Your task to perform on an android device: change the clock display to show seconds Image 0: 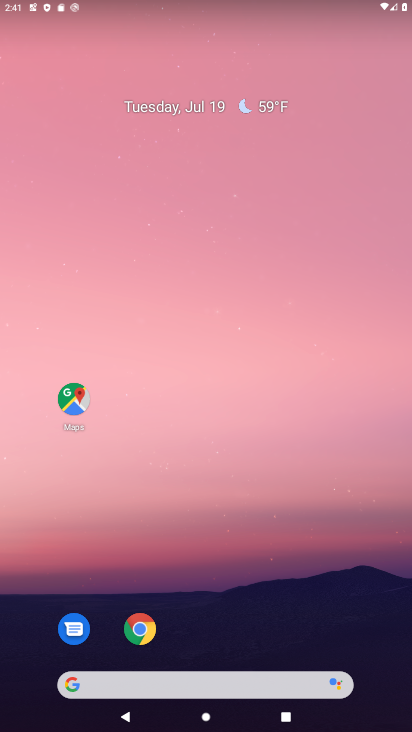
Step 0: drag from (194, 623) to (236, 0)
Your task to perform on an android device: change the clock display to show seconds Image 1: 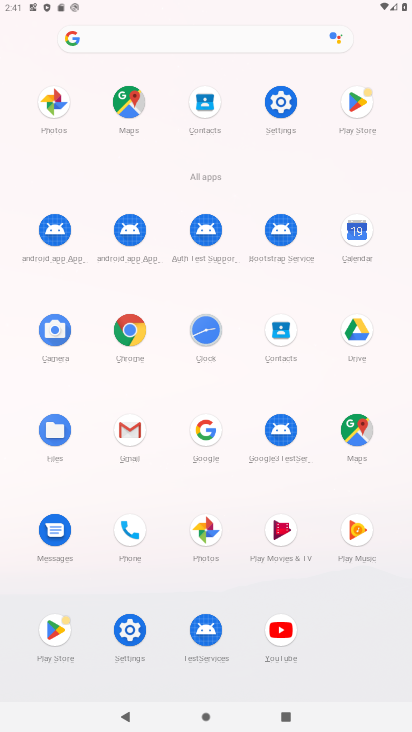
Step 1: click (205, 332)
Your task to perform on an android device: change the clock display to show seconds Image 2: 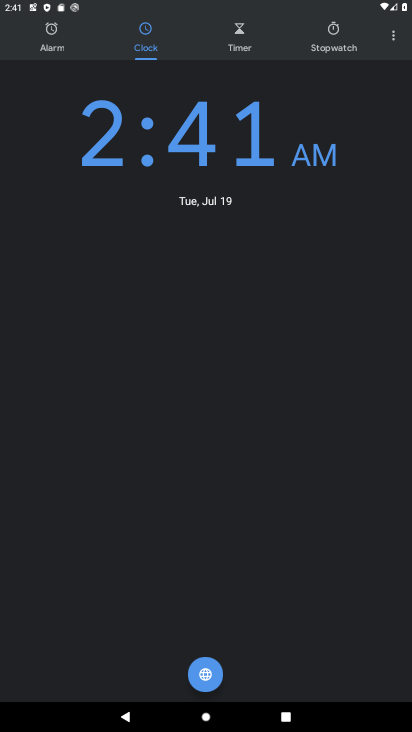
Step 2: click (399, 43)
Your task to perform on an android device: change the clock display to show seconds Image 3: 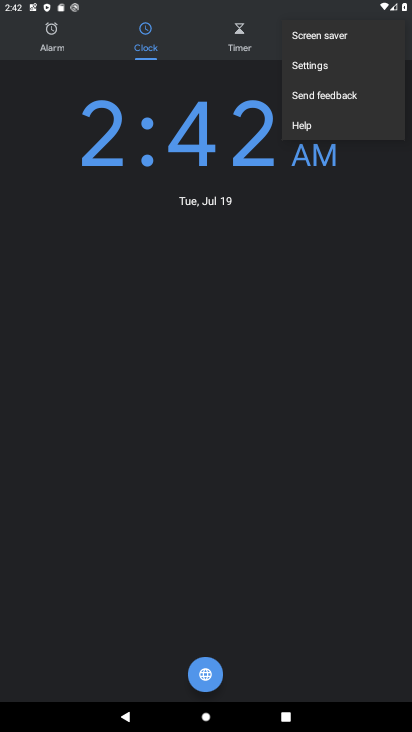
Step 3: click (317, 75)
Your task to perform on an android device: change the clock display to show seconds Image 4: 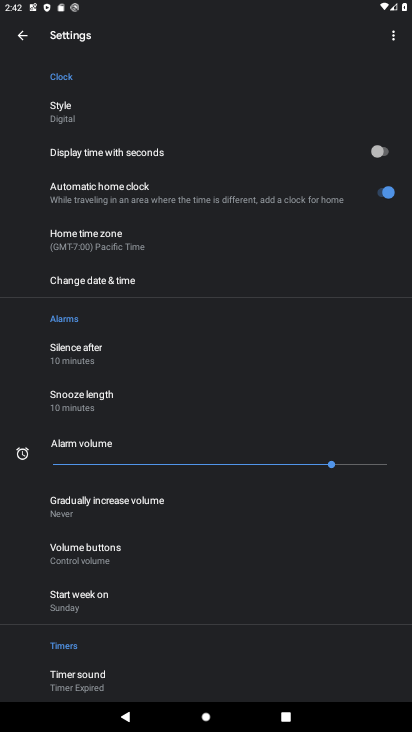
Step 4: click (317, 75)
Your task to perform on an android device: change the clock display to show seconds Image 5: 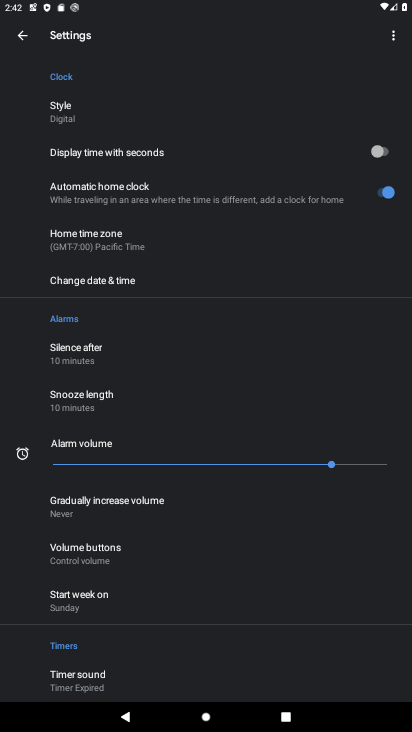
Step 5: click (386, 156)
Your task to perform on an android device: change the clock display to show seconds Image 6: 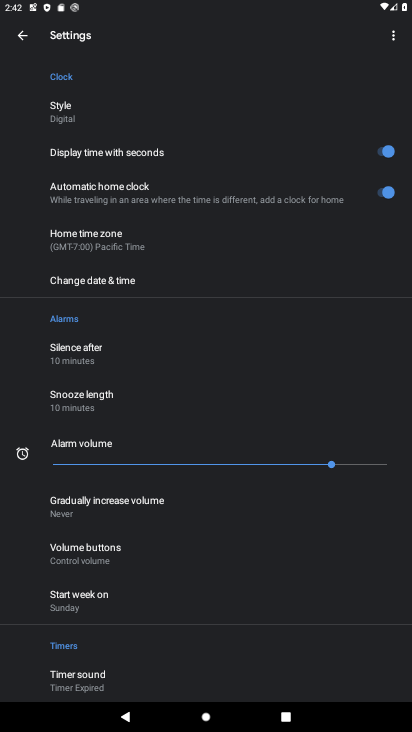
Step 6: task complete